Your task to perform on an android device: Go to calendar. Show me events next week Image 0: 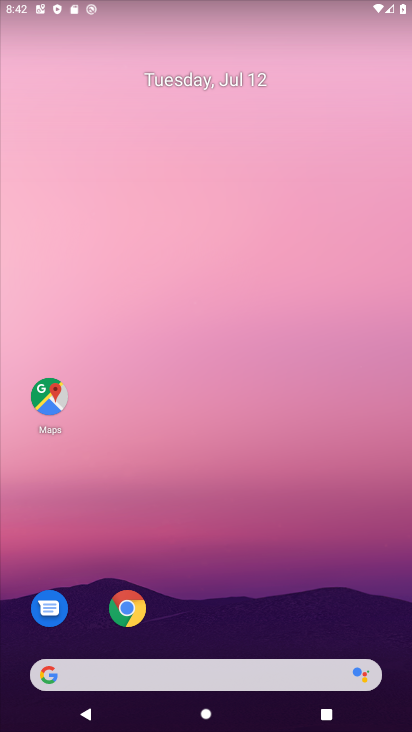
Step 0: click (242, 69)
Your task to perform on an android device: Go to calendar. Show me events next week Image 1: 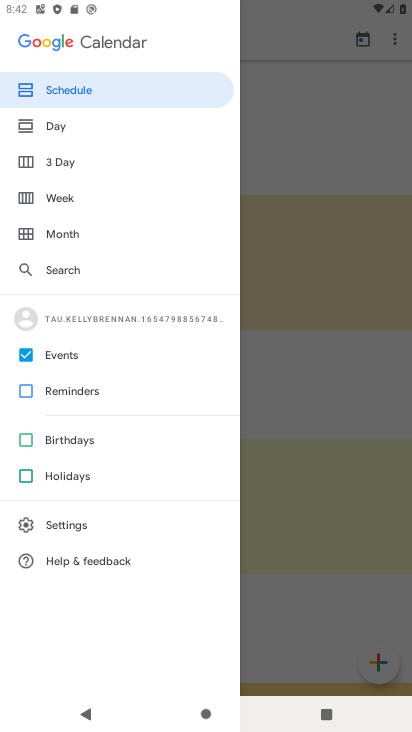
Step 1: click (59, 195)
Your task to perform on an android device: Go to calendar. Show me events next week Image 2: 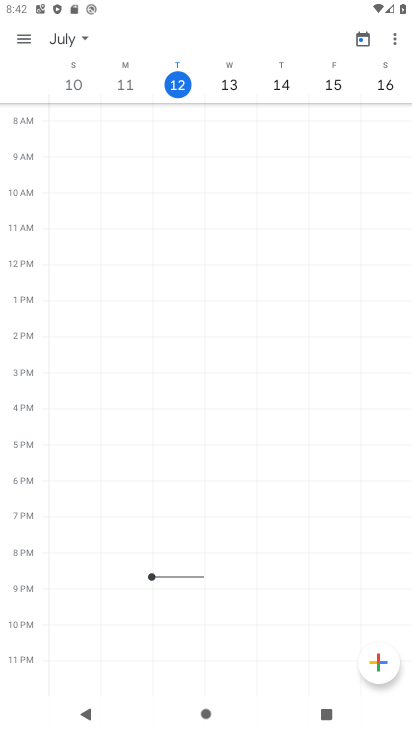
Step 2: click (87, 41)
Your task to perform on an android device: Go to calendar. Show me events next week Image 3: 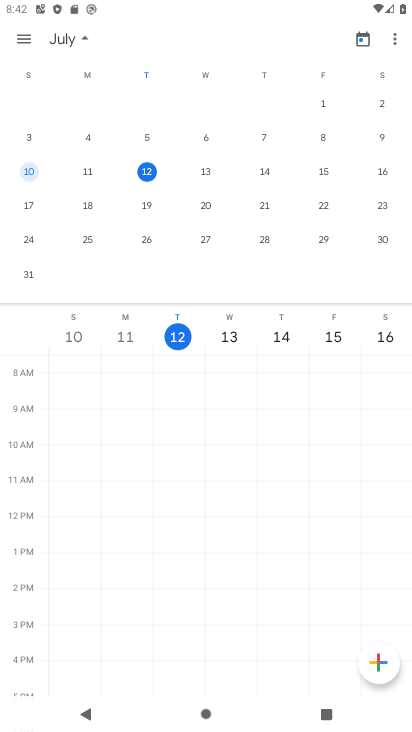
Step 3: click (145, 209)
Your task to perform on an android device: Go to calendar. Show me events next week Image 4: 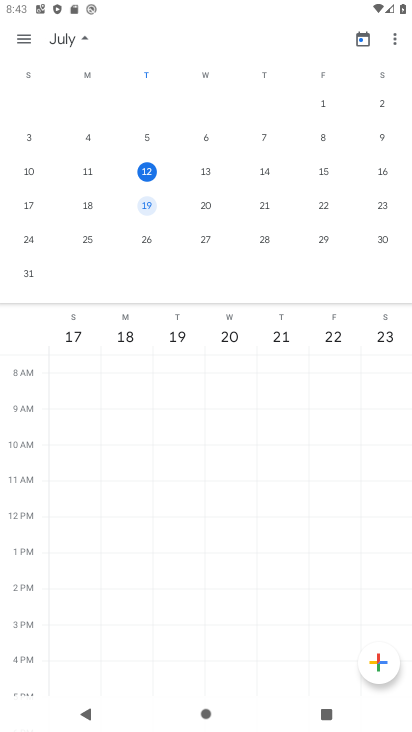
Step 4: task complete